Your task to perform on an android device: toggle javascript in the chrome app Image 0: 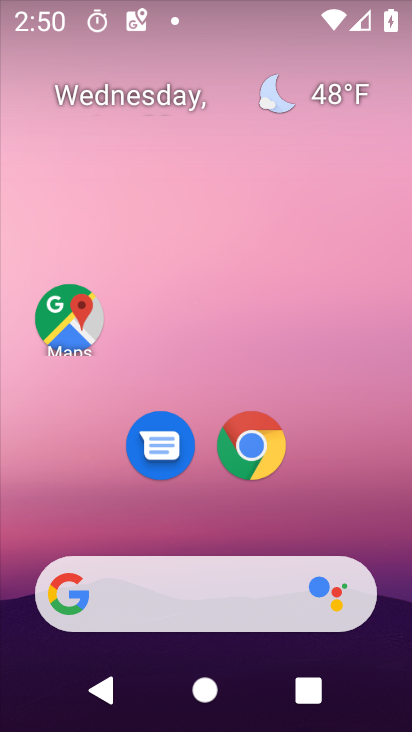
Step 0: click (261, 447)
Your task to perform on an android device: toggle javascript in the chrome app Image 1: 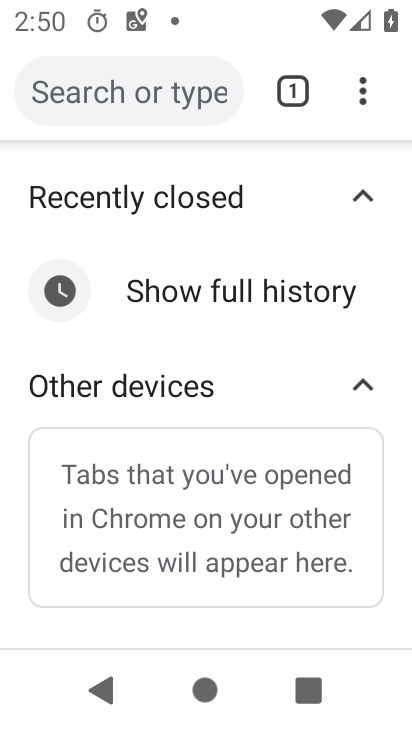
Step 1: click (361, 90)
Your task to perform on an android device: toggle javascript in the chrome app Image 2: 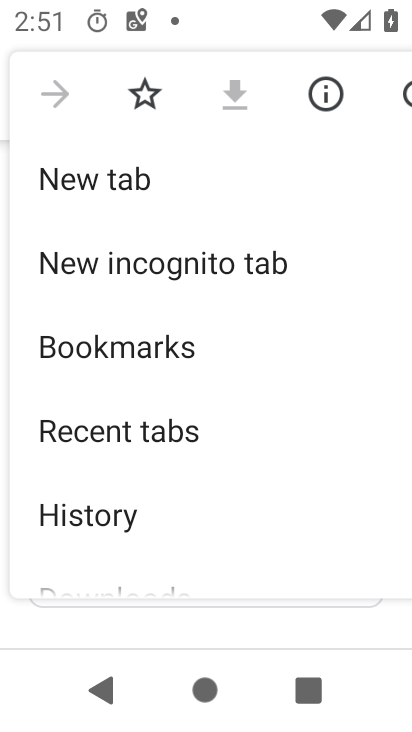
Step 2: drag from (275, 469) to (236, 25)
Your task to perform on an android device: toggle javascript in the chrome app Image 3: 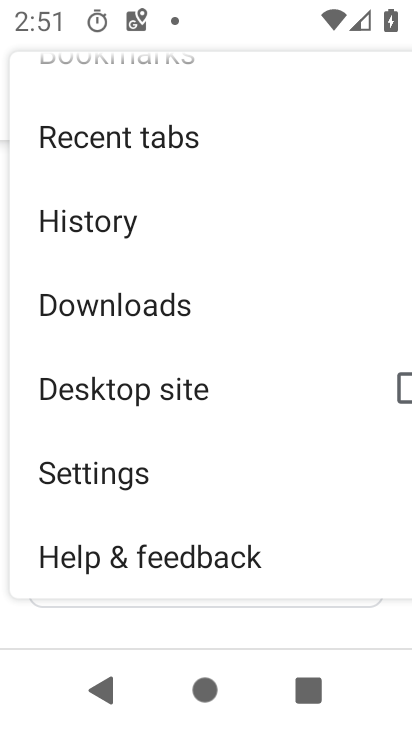
Step 3: click (98, 481)
Your task to perform on an android device: toggle javascript in the chrome app Image 4: 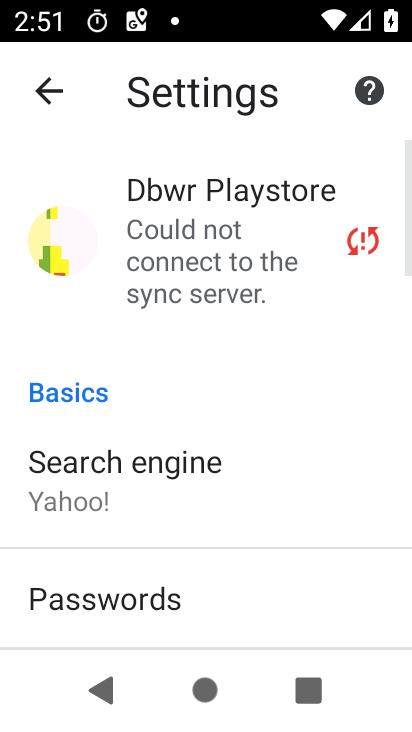
Step 4: drag from (361, 548) to (337, 92)
Your task to perform on an android device: toggle javascript in the chrome app Image 5: 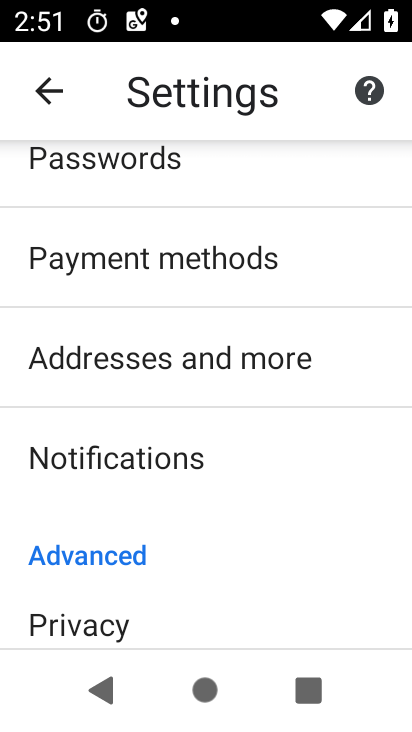
Step 5: drag from (345, 474) to (319, 165)
Your task to perform on an android device: toggle javascript in the chrome app Image 6: 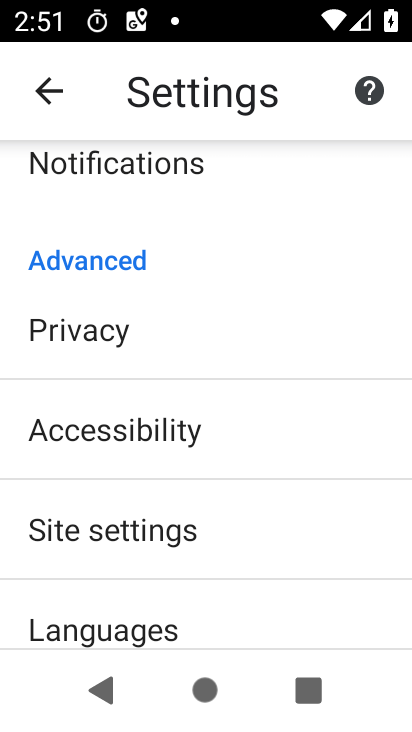
Step 6: click (120, 541)
Your task to perform on an android device: toggle javascript in the chrome app Image 7: 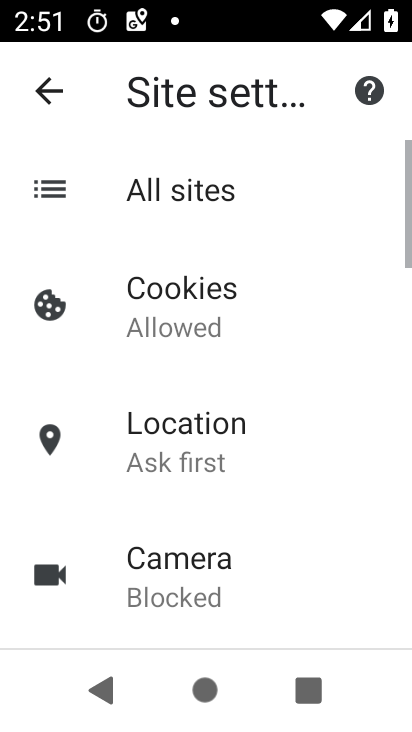
Step 7: drag from (286, 539) to (259, 192)
Your task to perform on an android device: toggle javascript in the chrome app Image 8: 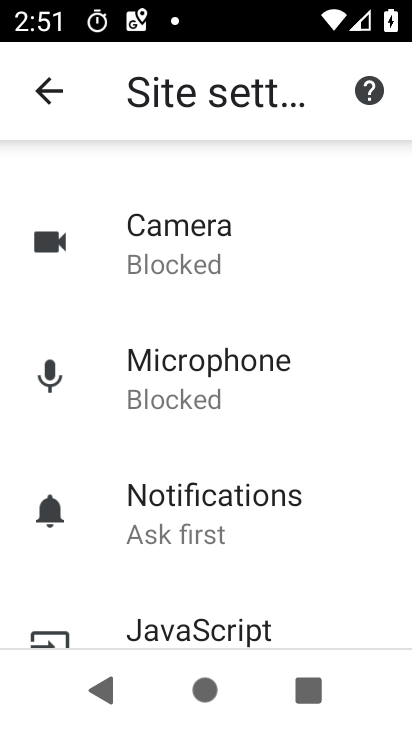
Step 8: drag from (355, 526) to (356, 378)
Your task to perform on an android device: toggle javascript in the chrome app Image 9: 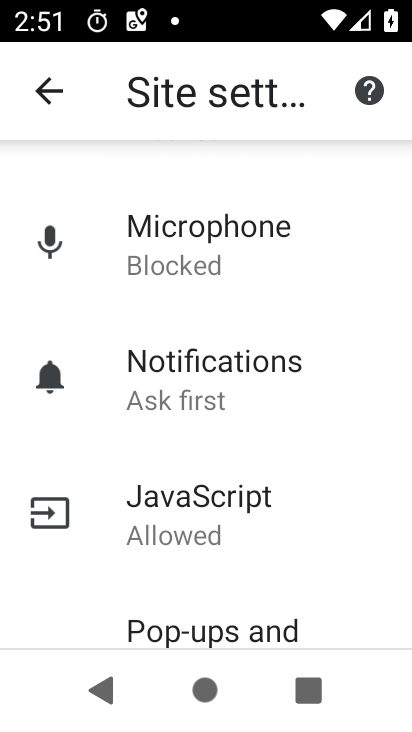
Step 9: click (184, 508)
Your task to perform on an android device: toggle javascript in the chrome app Image 10: 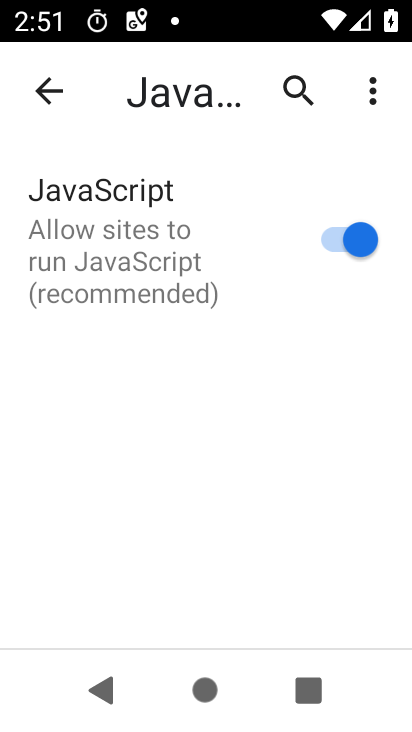
Step 10: click (377, 238)
Your task to perform on an android device: toggle javascript in the chrome app Image 11: 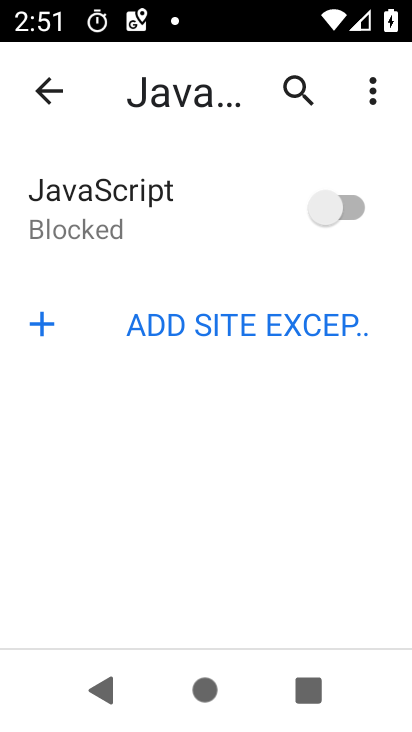
Step 11: task complete